Your task to perform on an android device: Go to battery settings Image 0: 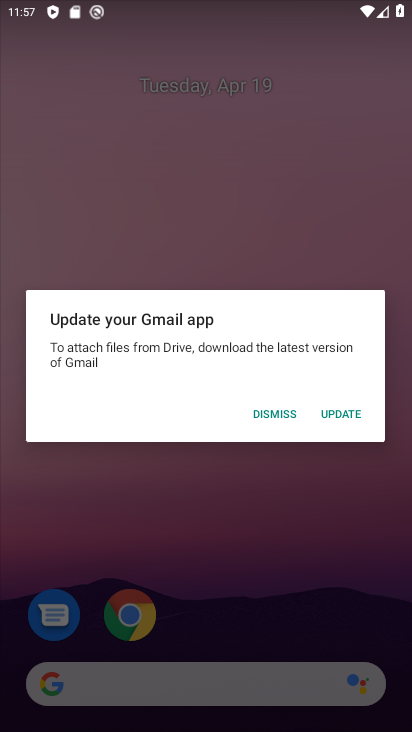
Step 0: press home button
Your task to perform on an android device: Go to battery settings Image 1: 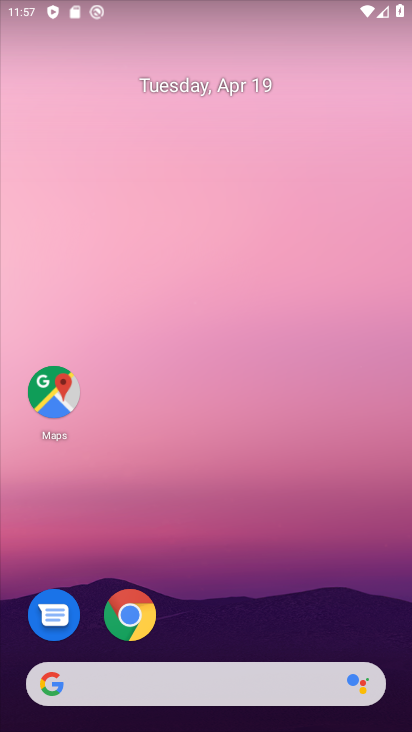
Step 1: drag from (244, 540) to (232, 91)
Your task to perform on an android device: Go to battery settings Image 2: 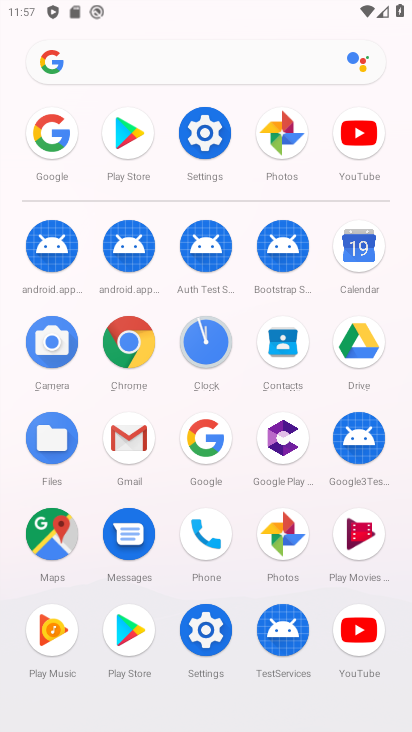
Step 2: click (203, 137)
Your task to perform on an android device: Go to battery settings Image 3: 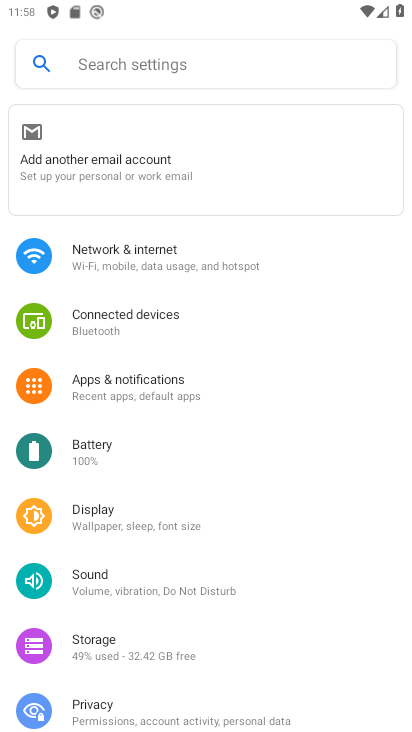
Step 3: click (124, 453)
Your task to perform on an android device: Go to battery settings Image 4: 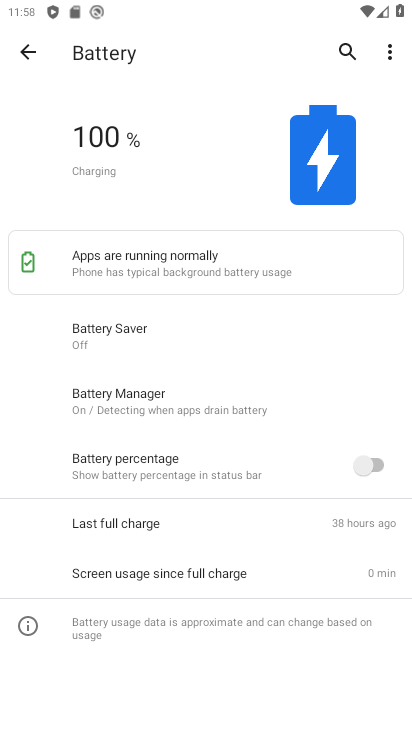
Step 4: task complete